Your task to perform on an android device: Clear the cart on target.com. Image 0: 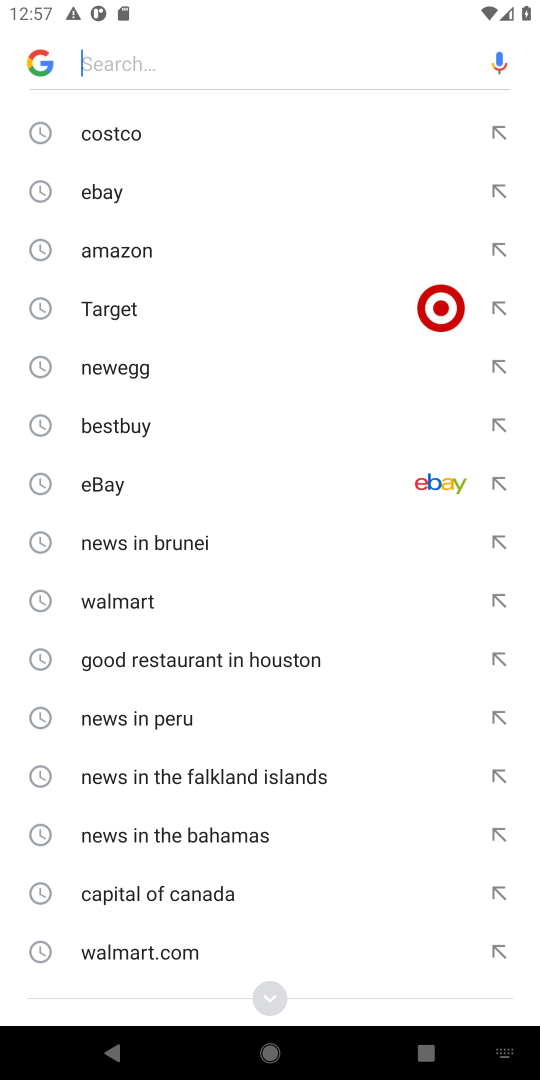
Step 0: click (205, 303)
Your task to perform on an android device: Clear the cart on target.com. Image 1: 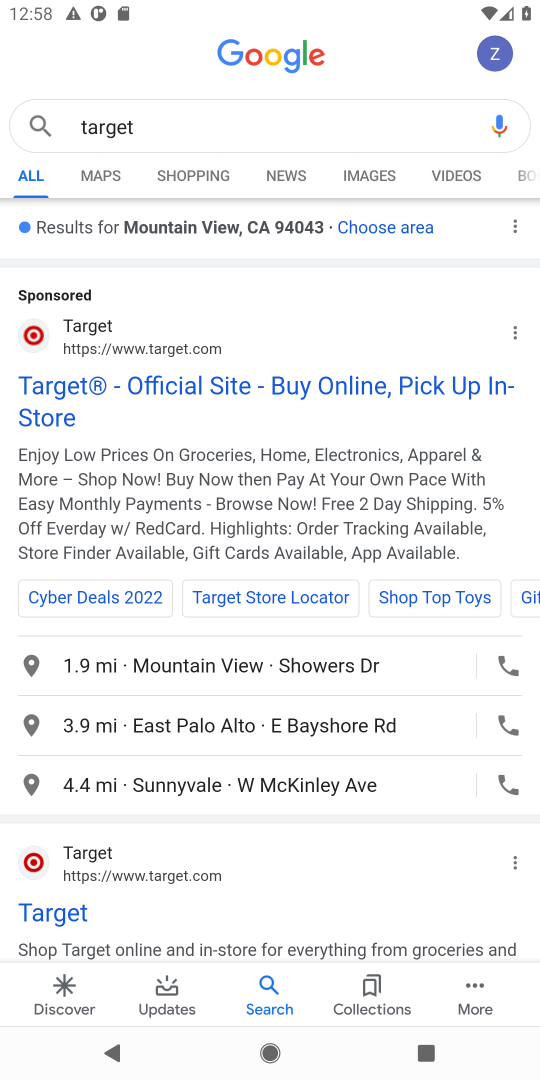
Step 1: click (138, 404)
Your task to perform on an android device: Clear the cart on target.com. Image 2: 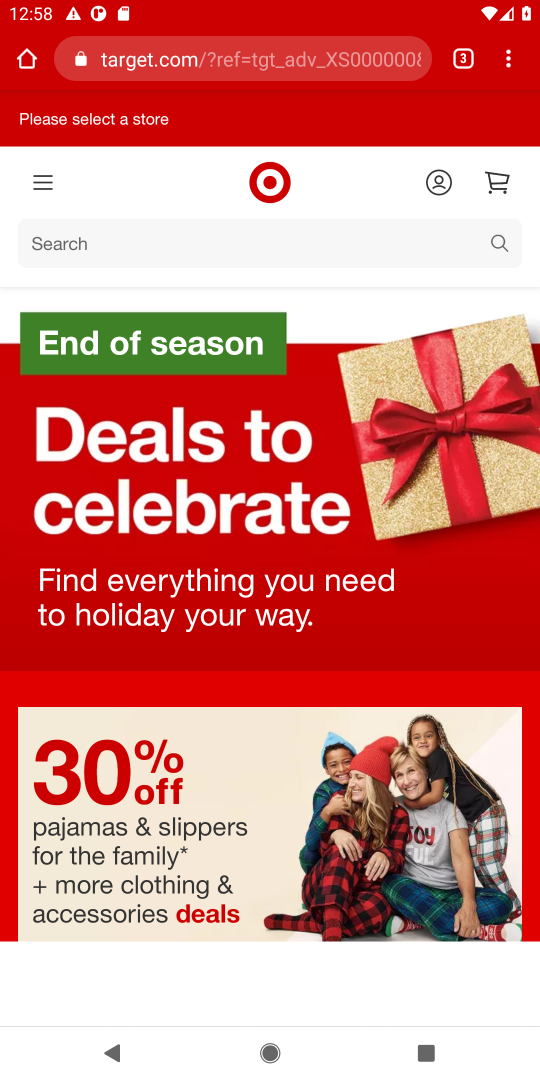
Step 2: click (166, 261)
Your task to perform on an android device: Clear the cart on target.com. Image 3: 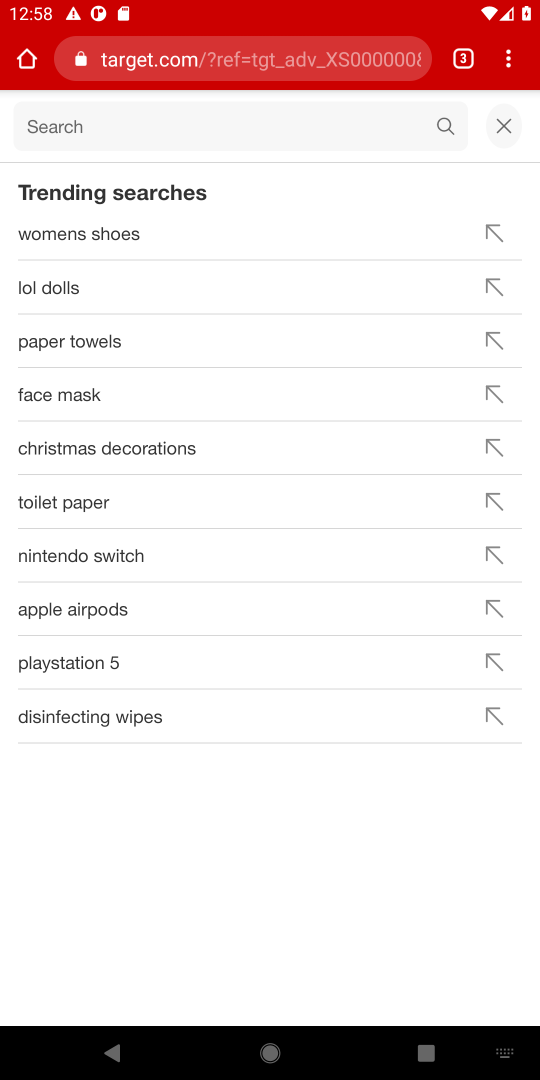
Step 3: type "target"
Your task to perform on an android device: Clear the cart on target.com. Image 4: 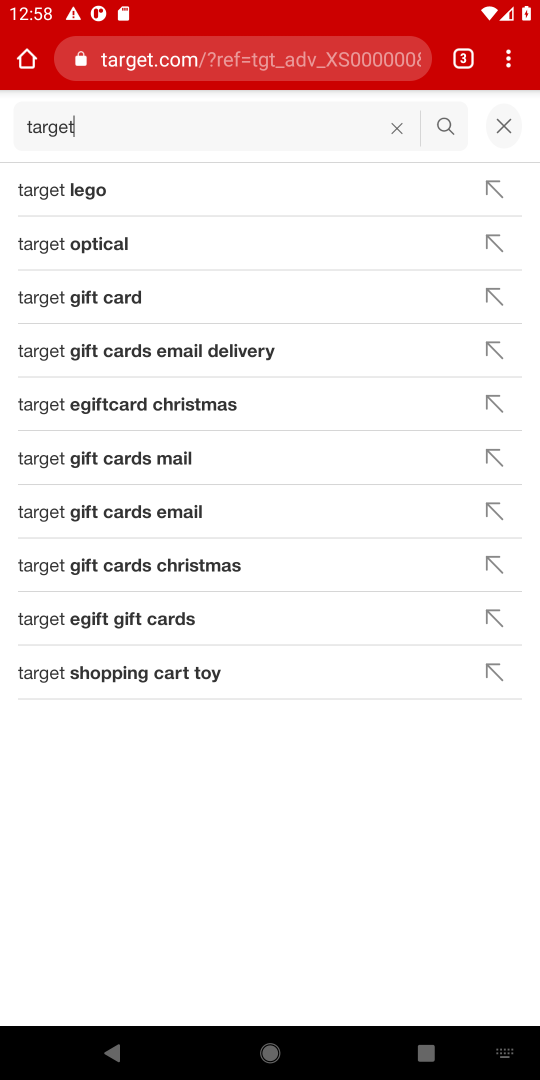
Step 4: click (126, 194)
Your task to perform on an android device: Clear the cart on target.com. Image 5: 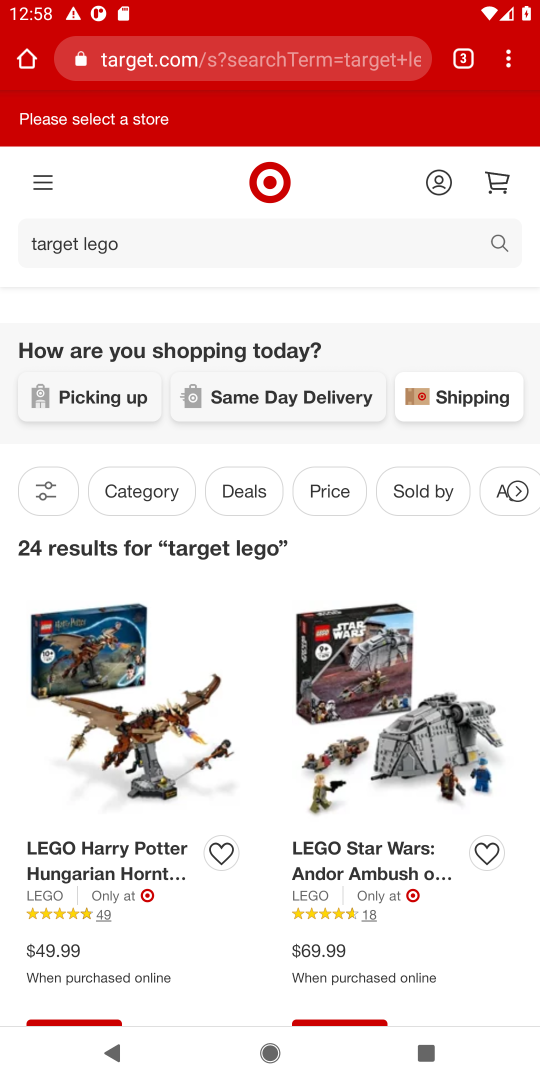
Step 5: task complete